Your task to perform on an android device: change alarm snooze length Image 0: 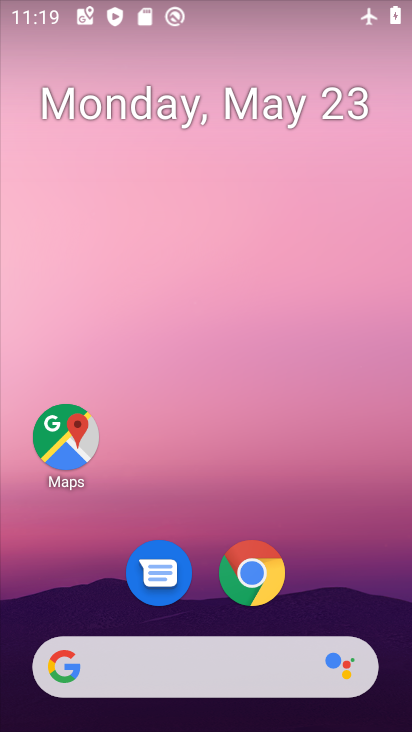
Step 0: drag from (380, 614) to (366, 266)
Your task to perform on an android device: change alarm snooze length Image 1: 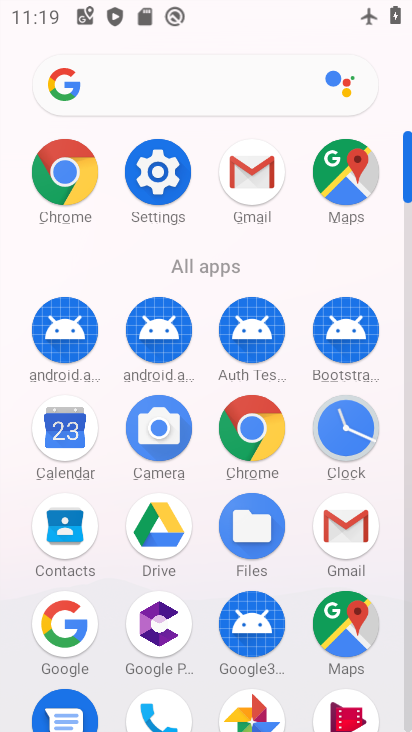
Step 1: click (348, 439)
Your task to perform on an android device: change alarm snooze length Image 2: 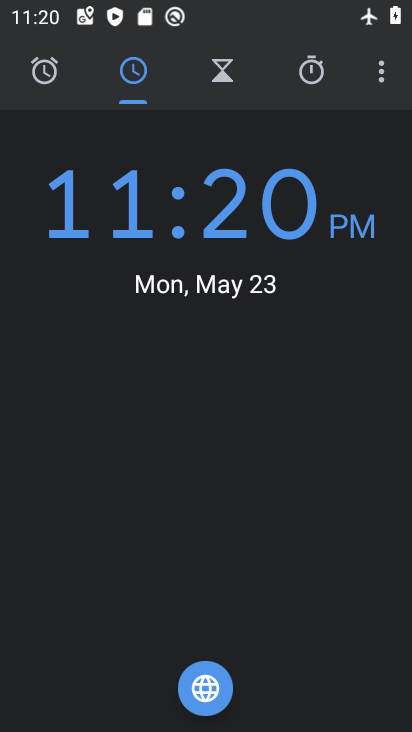
Step 2: click (382, 78)
Your task to perform on an android device: change alarm snooze length Image 3: 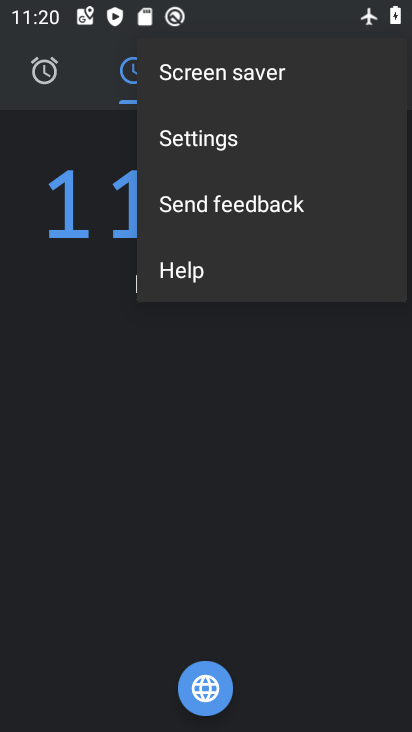
Step 3: click (228, 145)
Your task to perform on an android device: change alarm snooze length Image 4: 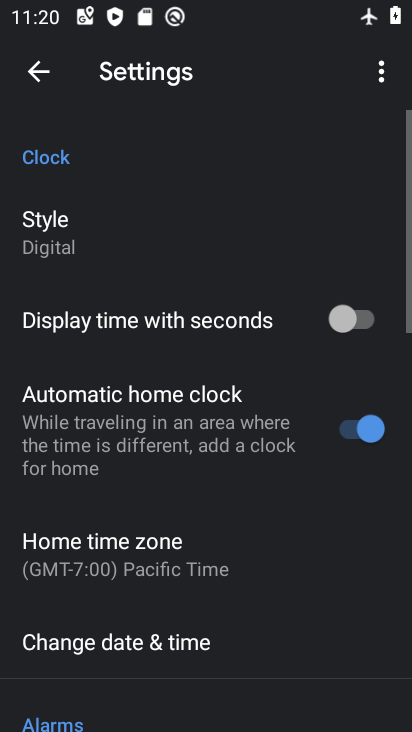
Step 4: drag from (301, 587) to (307, 392)
Your task to perform on an android device: change alarm snooze length Image 5: 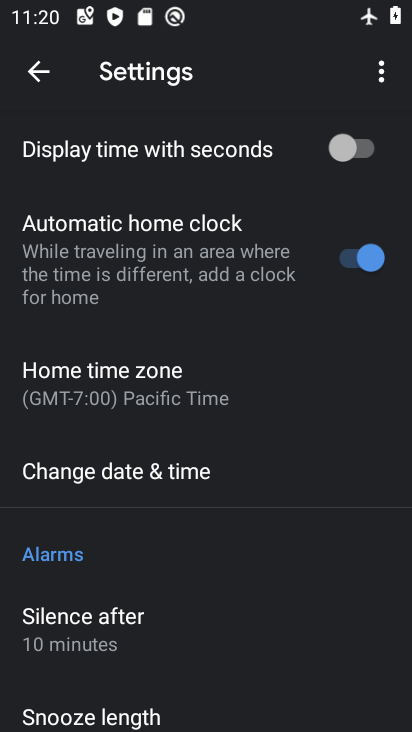
Step 5: drag from (298, 590) to (293, 451)
Your task to perform on an android device: change alarm snooze length Image 6: 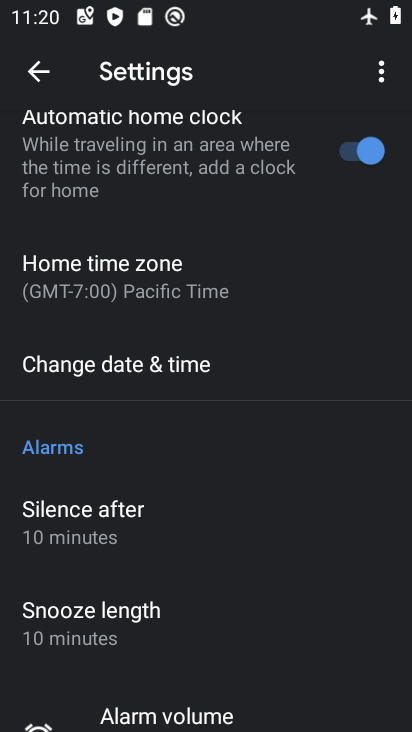
Step 6: drag from (293, 312) to (276, 433)
Your task to perform on an android device: change alarm snooze length Image 7: 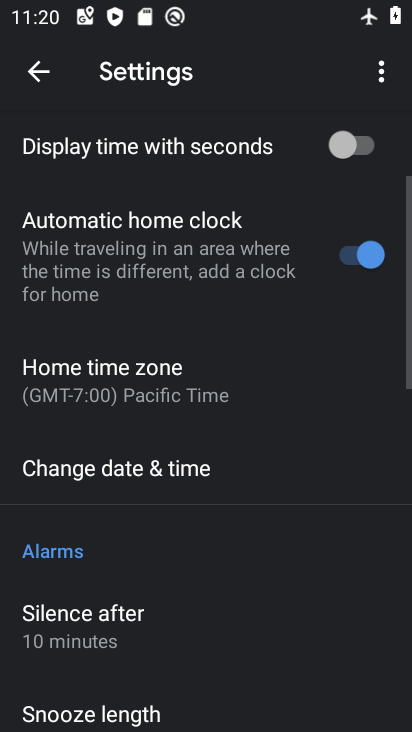
Step 7: drag from (299, 589) to (296, 438)
Your task to perform on an android device: change alarm snooze length Image 8: 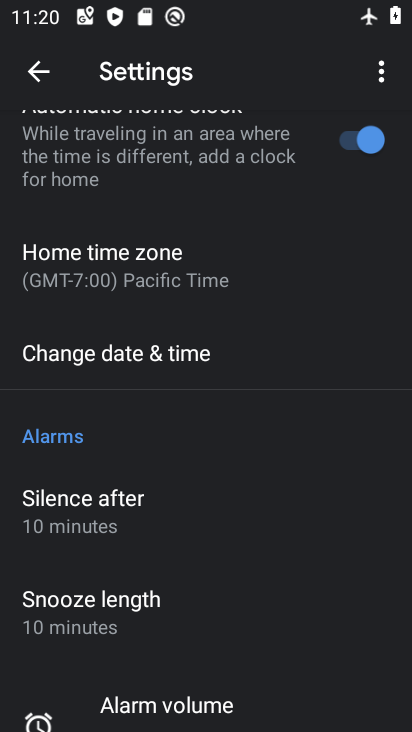
Step 8: drag from (318, 586) to (318, 451)
Your task to perform on an android device: change alarm snooze length Image 9: 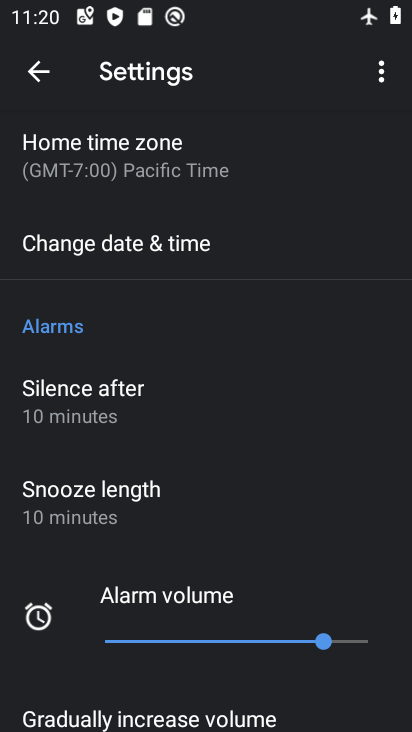
Step 9: click (100, 500)
Your task to perform on an android device: change alarm snooze length Image 10: 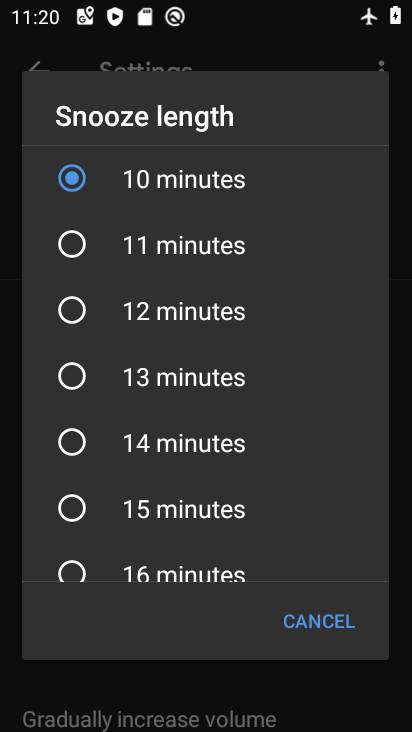
Step 10: drag from (309, 514) to (304, 403)
Your task to perform on an android device: change alarm snooze length Image 11: 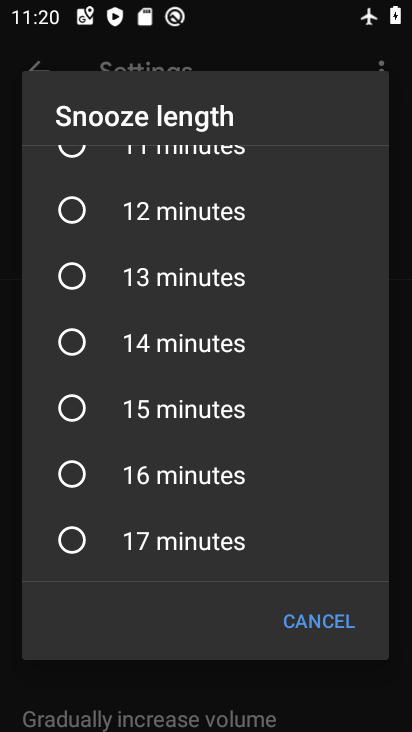
Step 11: click (74, 409)
Your task to perform on an android device: change alarm snooze length Image 12: 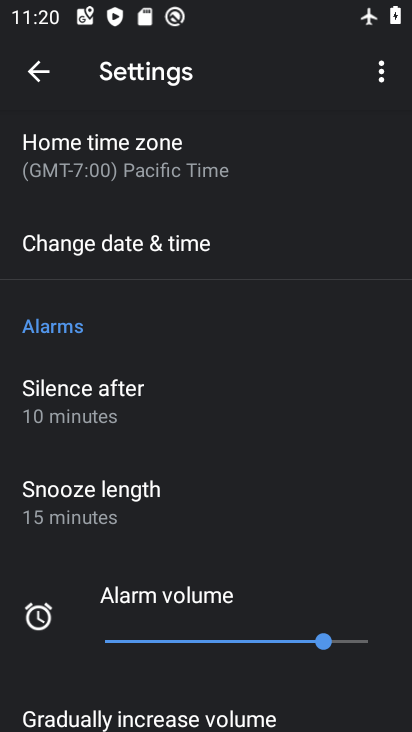
Step 12: task complete